Your task to perform on an android device: toggle show notifications on the lock screen Image 0: 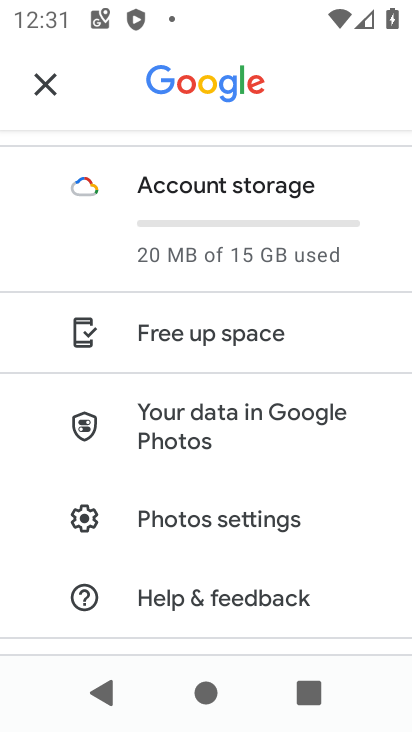
Step 0: press home button
Your task to perform on an android device: toggle show notifications on the lock screen Image 1: 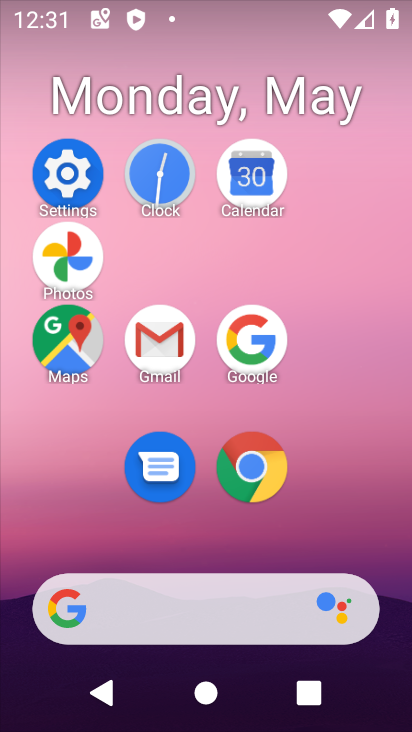
Step 1: click (66, 174)
Your task to perform on an android device: toggle show notifications on the lock screen Image 2: 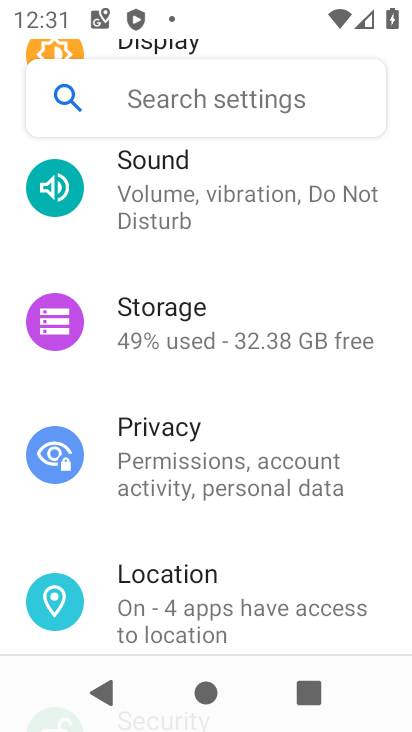
Step 2: drag from (351, 266) to (393, 654)
Your task to perform on an android device: toggle show notifications on the lock screen Image 3: 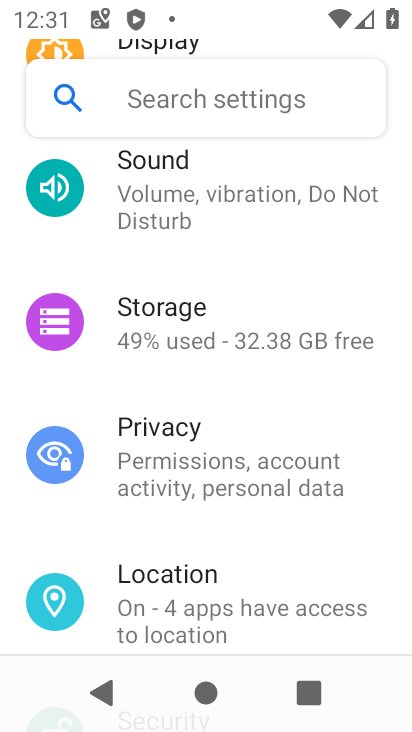
Step 3: drag from (327, 159) to (327, 619)
Your task to perform on an android device: toggle show notifications on the lock screen Image 4: 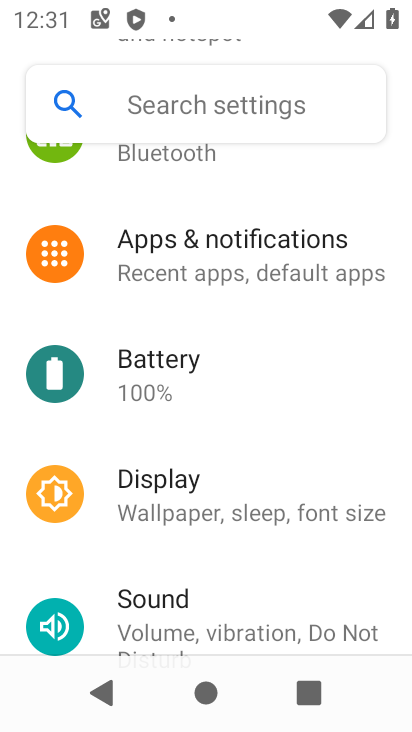
Step 4: click (238, 269)
Your task to perform on an android device: toggle show notifications on the lock screen Image 5: 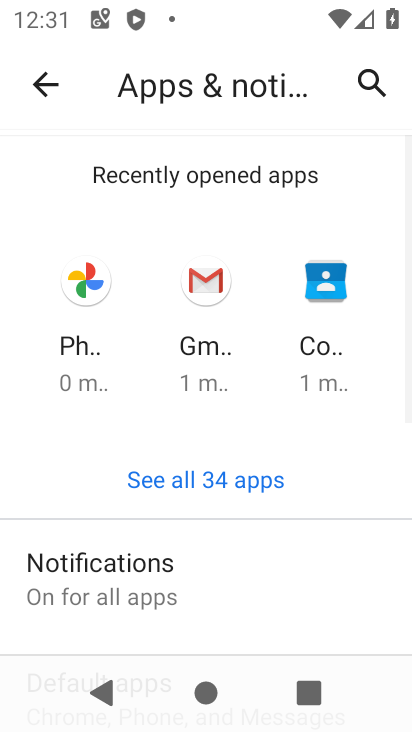
Step 5: click (285, 594)
Your task to perform on an android device: toggle show notifications on the lock screen Image 6: 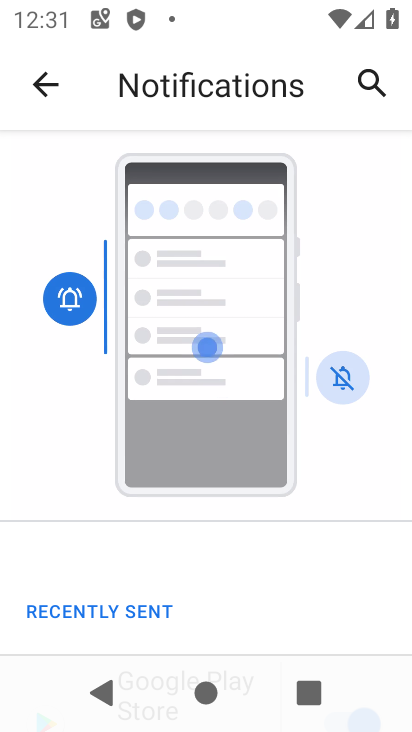
Step 6: drag from (285, 591) to (237, 73)
Your task to perform on an android device: toggle show notifications on the lock screen Image 7: 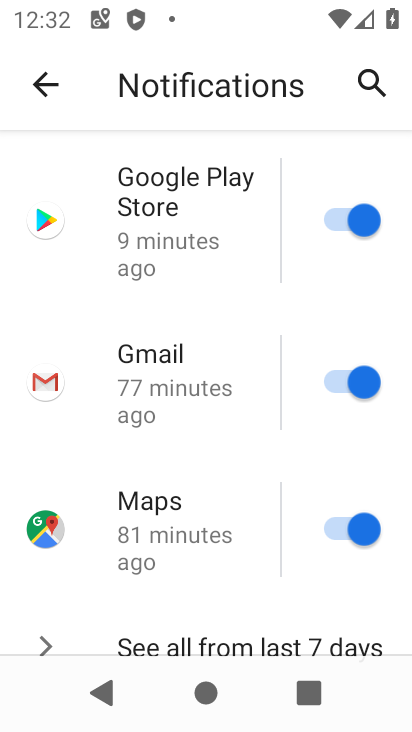
Step 7: drag from (229, 493) to (174, 129)
Your task to perform on an android device: toggle show notifications on the lock screen Image 8: 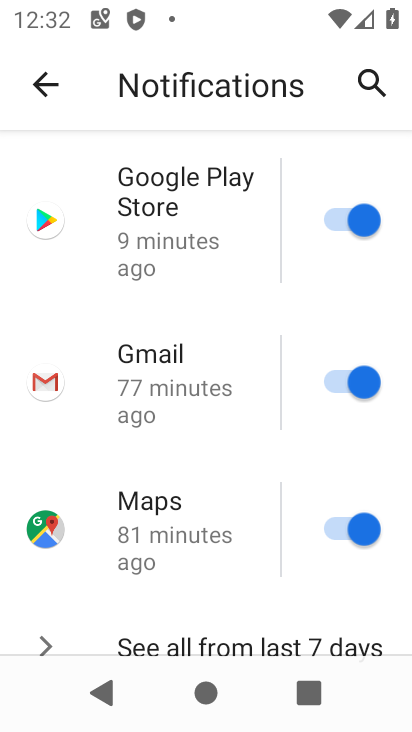
Step 8: drag from (226, 560) to (247, 112)
Your task to perform on an android device: toggle show notifications on the lock screen Image 9: 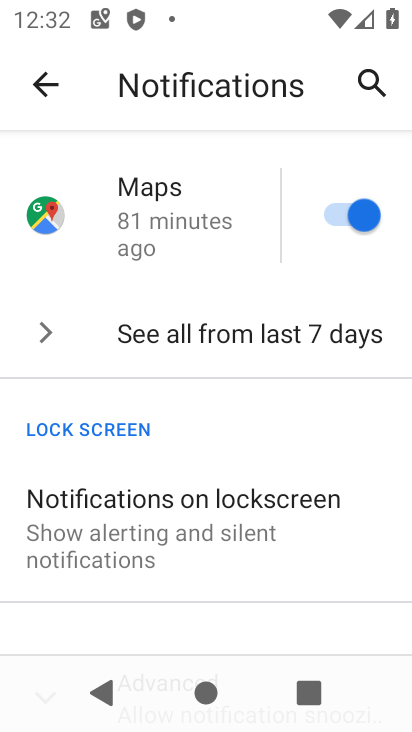
Step 9: click (209, 537)
Your task to perform on an android device: toggle show notifications on the lock screen Image 10: 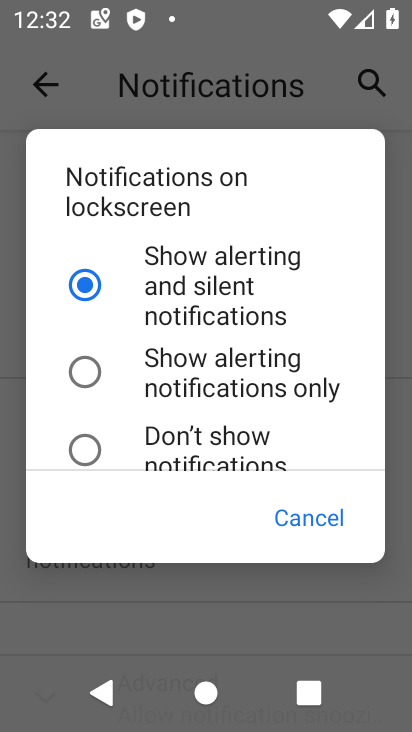
Step 10: click (147, 404)
Your task to perform on an android device: toggle show notifications on the lock screen Image 11: 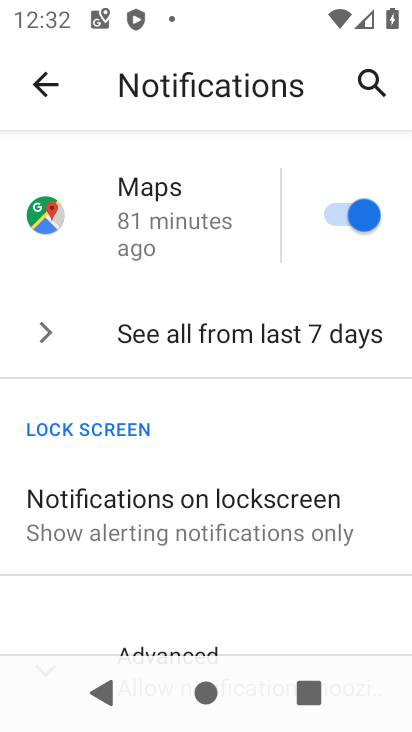
Step 11: task complete